Your task to perform on an android device: Open settings on Google Maps Image 0: 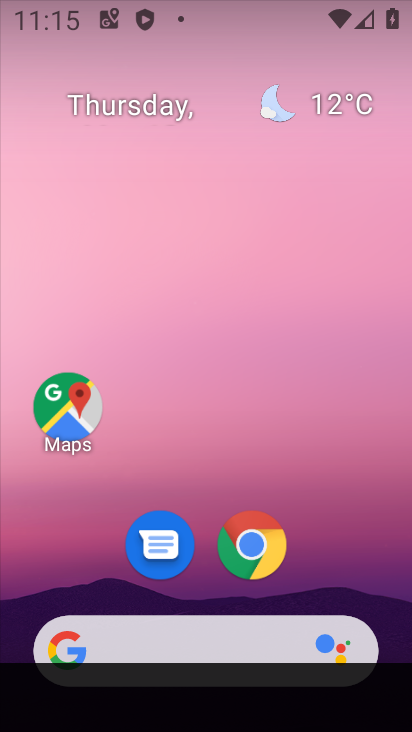
Step 0: press home button
Your task to perform on an android device: Open settings on Google Maps Image 1: 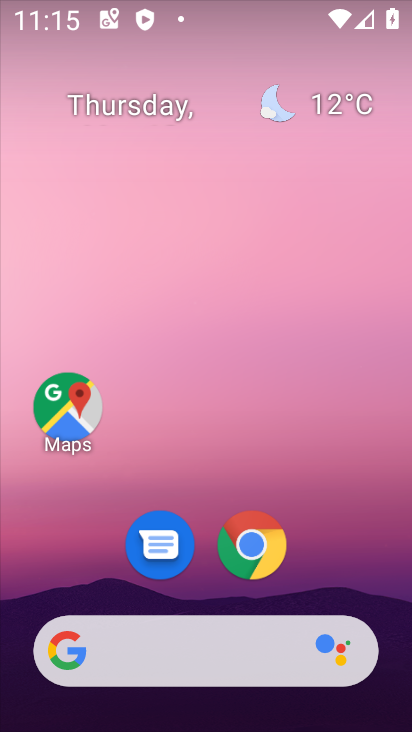
Step 1: click (87, 400)
Your task to perform on an android device: Open settings on Google Maps Image 2: 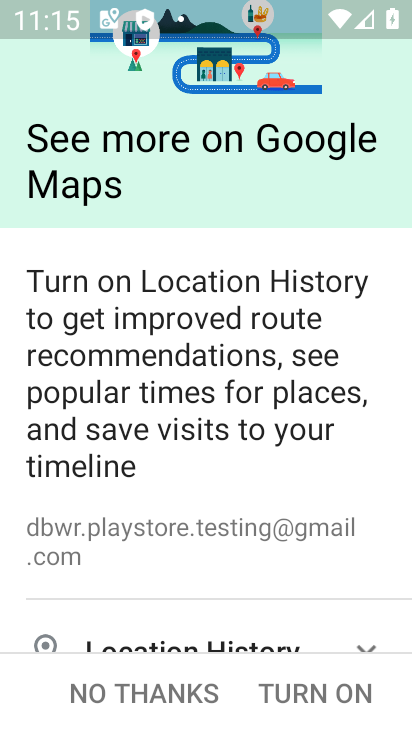
Step 2: press back button
Your task to perform on an android device: Open settings on Google Maps Image 3: 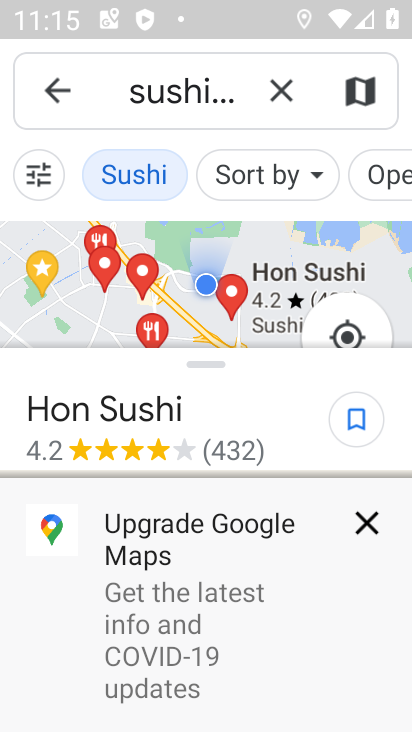
Step 3: click (287, 100)
Your task to perform on an android device: Open settings on Google Maps Image 4: 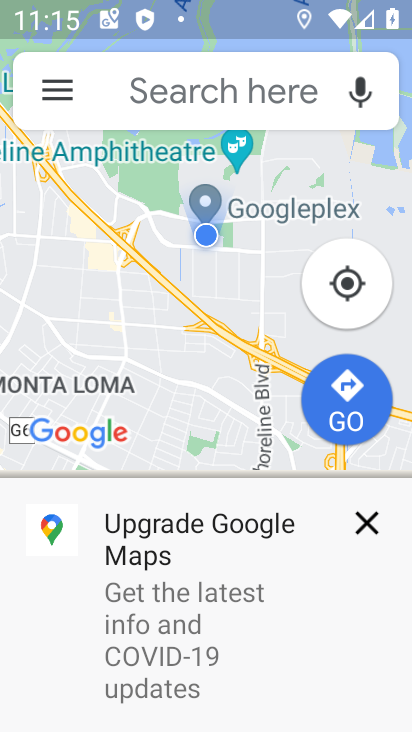
Step 4: task complete